Your task to perform on an android device: Search for seafood restaurants on Google Maps Image 0: 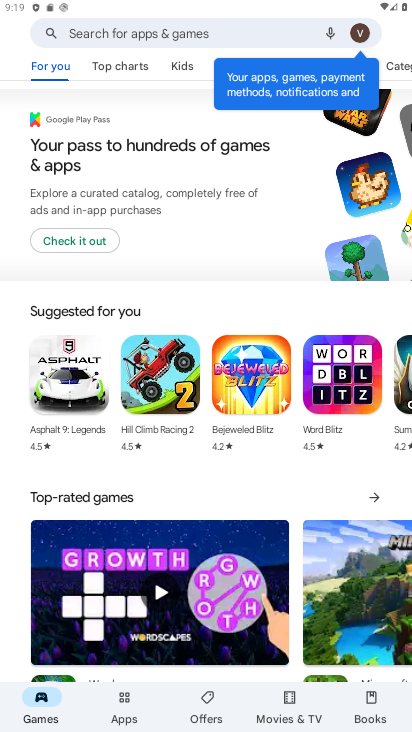
Step 0: press home button
Your task to perform on an android device: Search for seafood restaurants on Google Maps Image 1: 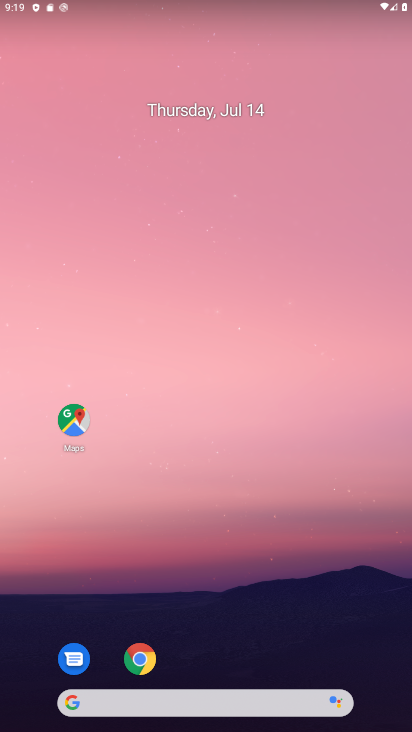
Step 1: drag from (301, 603) to (336, 69)
Your task to perform on an android device: Search for seafood restaurants on Google Maps Image 2: 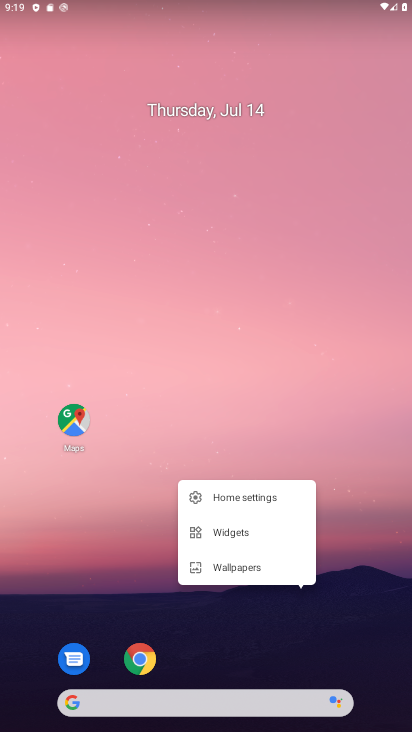
Step 2: drag from (303, 659) to (322, 94)
Your task to perform on an android device: Search for seafood restaurants on Google Maps Image 3: 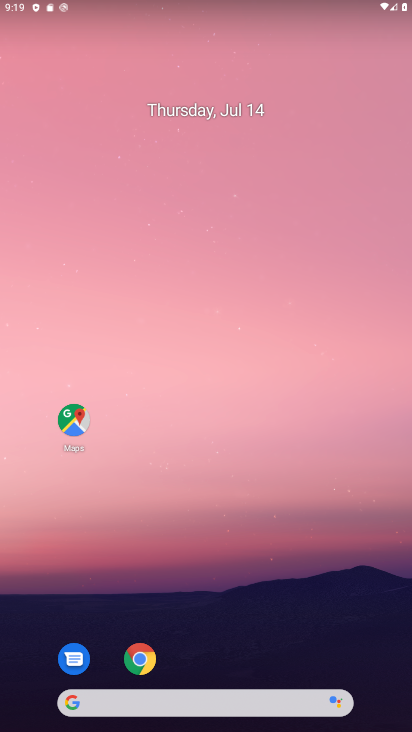
Step 3: drag from (240, 631) to (286, 112)
Your task to perform on an android device: Search for seafood restaurants on Google Maps Image 4: 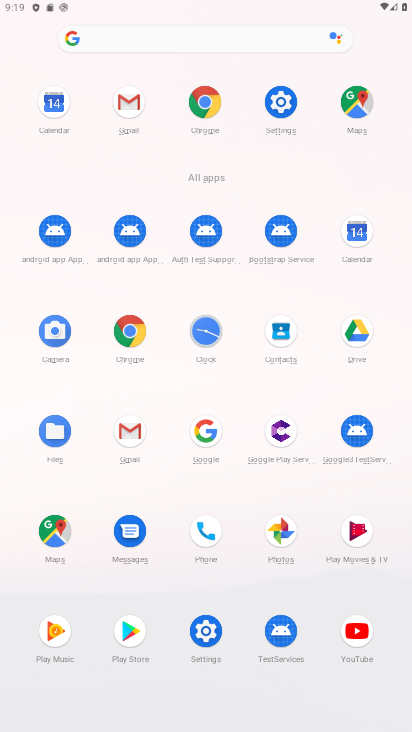
Step 4: click (73, 535)
Your task to perform on an android device: Search for seafood restaurants on Google Maps Image 5: 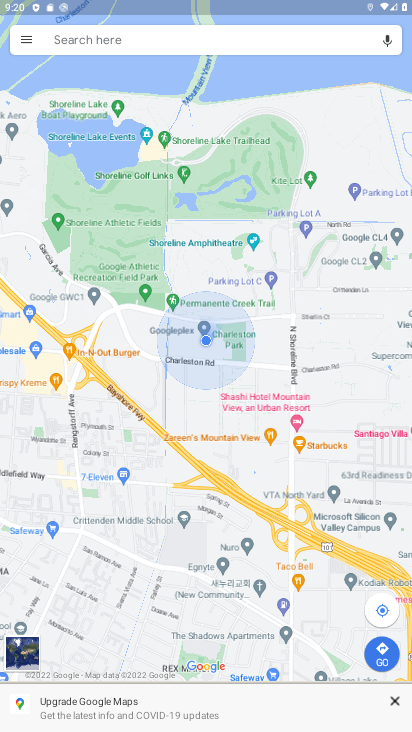
Step 5: click (222, 38)
Your task to perform on an android device: Search for seafood restaurants on Google Maps Image 6: 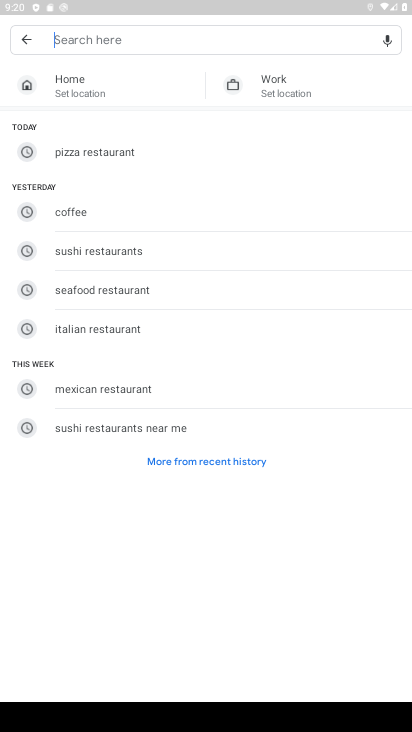
Step 6: type "seafood restaurant"
Your task to perform on an android device: Search for seafood restaurants on Google Maps Image 7: 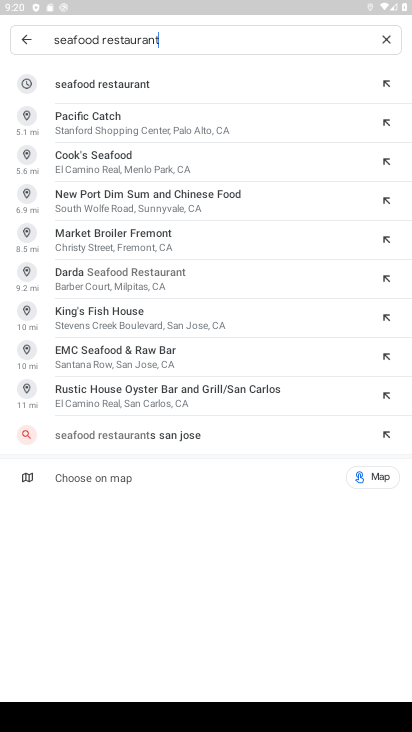
Step 7: click (60, 76)
Your task to perform on an android device: Search for seafood restaurants on Google Maps Image 8: 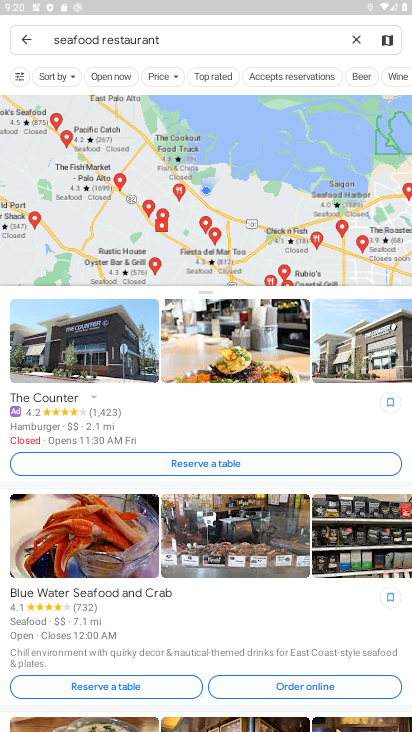
Step 8: task complete